Your task to perform on an android device: toggle wifi Image 0: 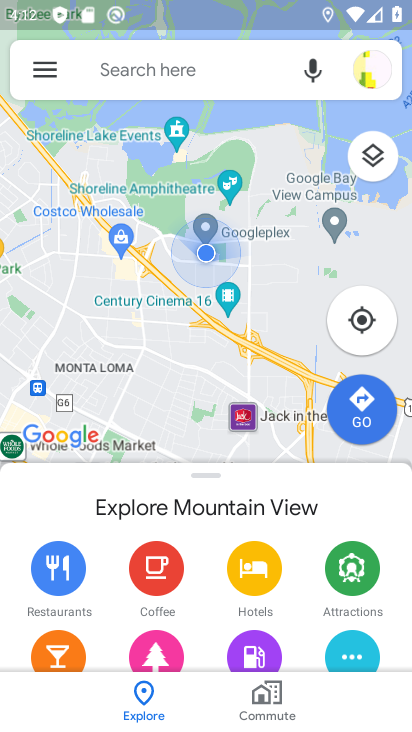
Step 0: press home button
Your task to perform on an android device: toggle wifi Image 1: 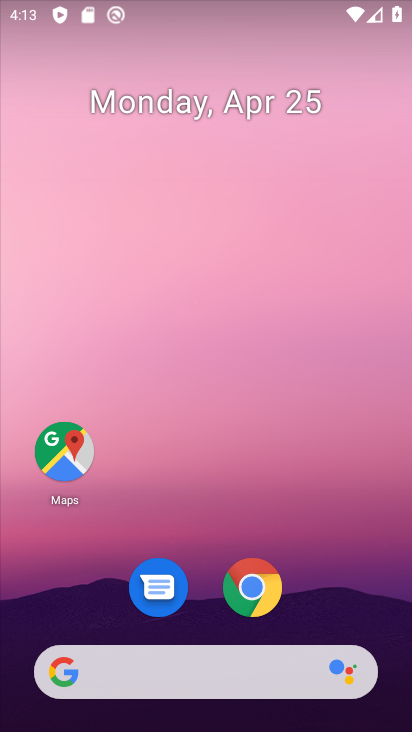
Step 1: drag from (342, 559) to (331, 3)
Your task to perform on an android device: toggle wifi Image 2: 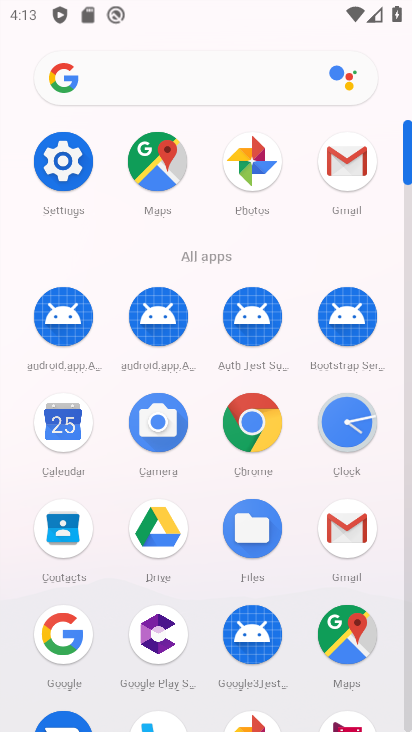
Step 2: click (67, 163)
Your task to perform on an android device: toggle wifi Image 3: 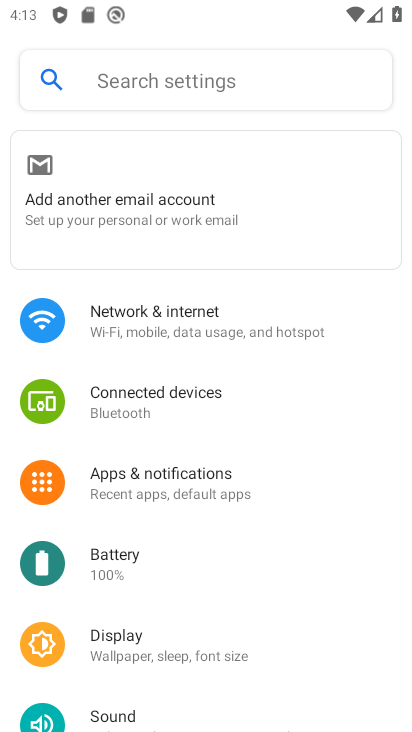
Step 3: click (130, 322)
Your task to perform on an android device: toggle wifi Image 4: 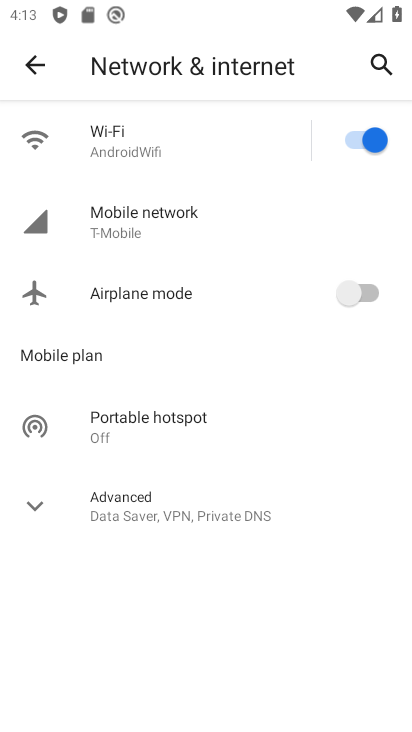
Step 4: click (364, 134)
Your task to perform on an android device: toggle wifi Image 5: 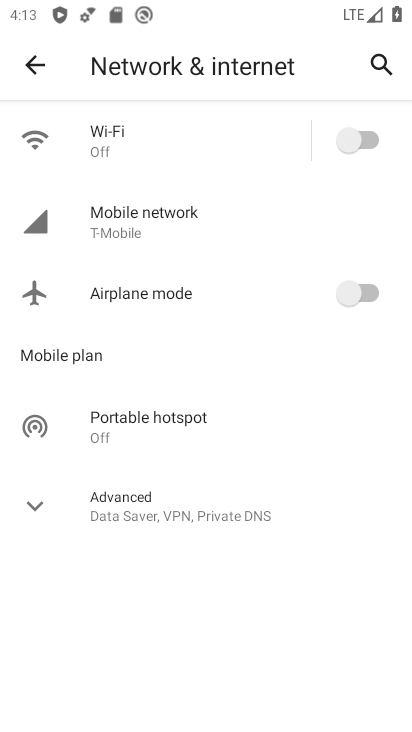
Step 5: task complete